Your task to perform on an android device: remove spam from my inbox in the gmail app Image 0: 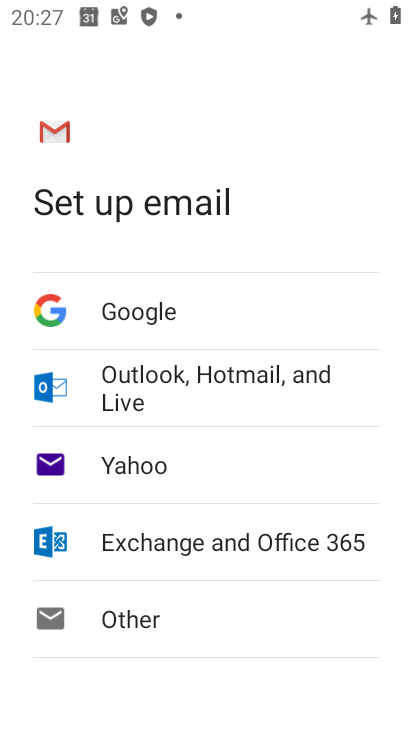
Step 0: press home button
Your task to perform on an android device: remove spam from my inbox in the gmail app Image 1: 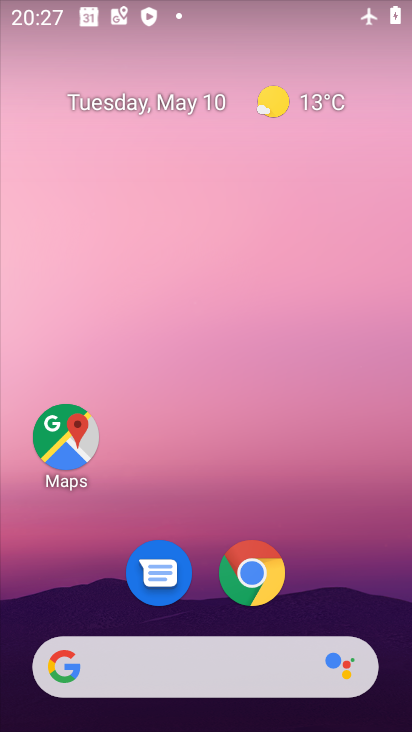
Step 1: drag from (367, 532) to (341, 3)
Your task to perform on an android device: remove spam from my inbox in the gmail app Image 2: 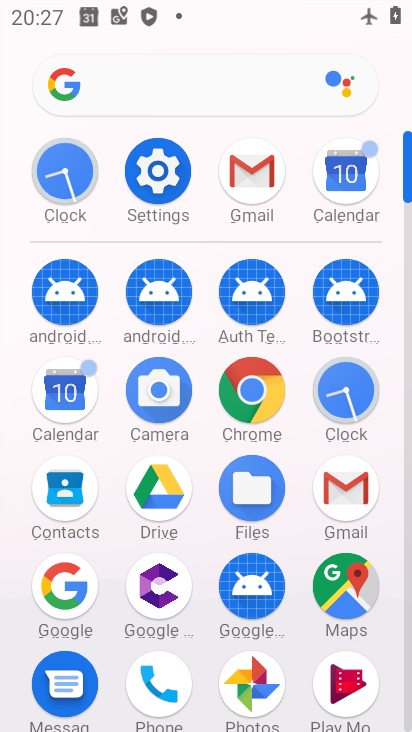
Step 2: click (250, 171)
Your task to perform on an android device: remove spam from my inbox in the gmail app Image 3: 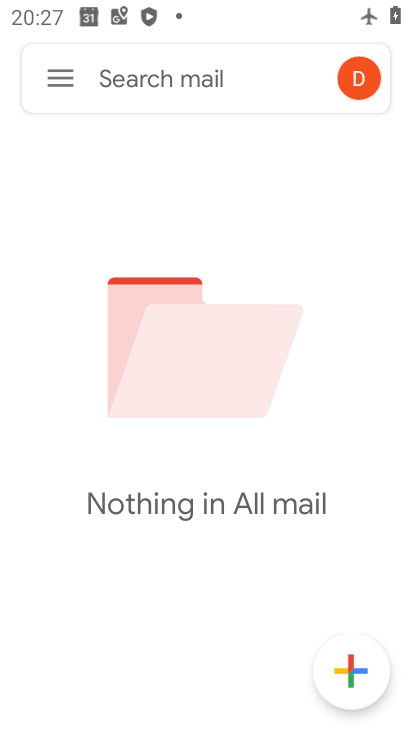
Step 3: click (62, 89)
Your task to perform on an android device: remove spam from my inbox in the gmail app Image 4: 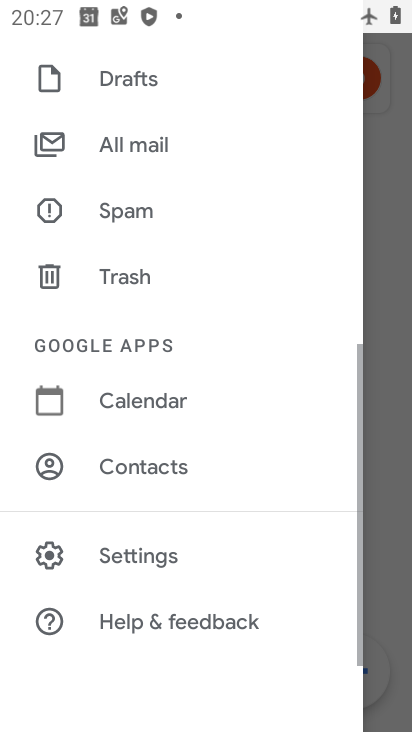
Step 4: click (101, 211)
Your task to perform on an android device: remove spam from my inbox in the gmail app Image 5: 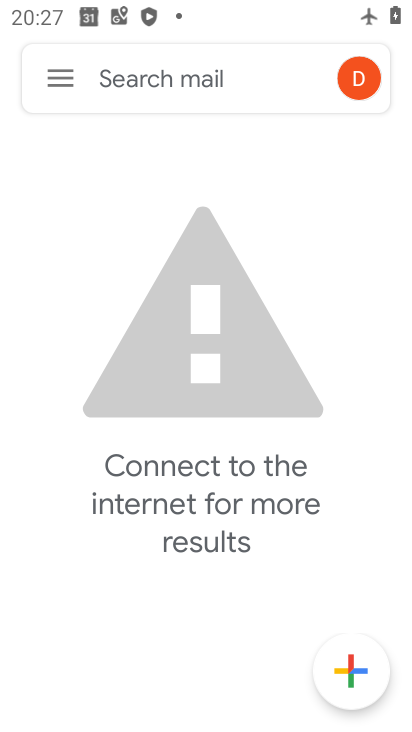
Step 5: task complete